Your task to perform on an android device: Open eBay Image 0: 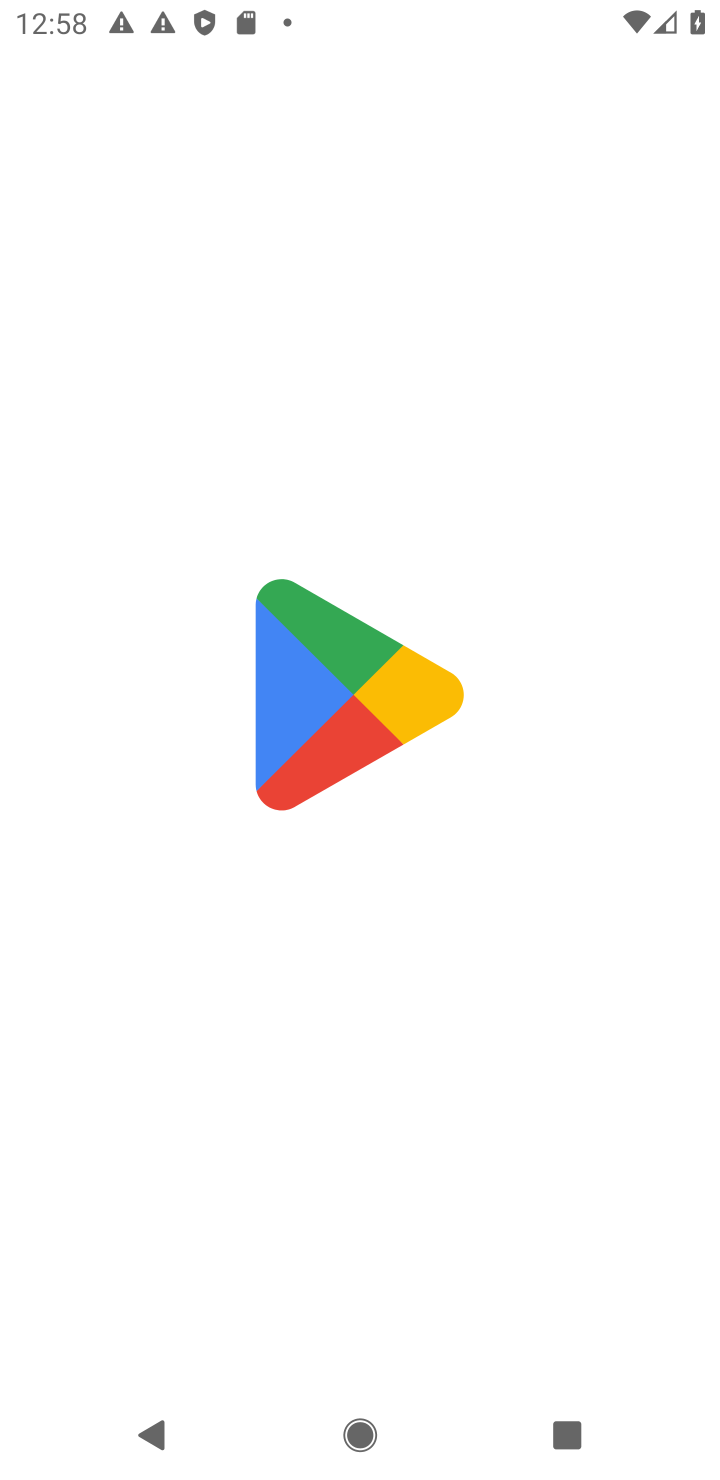
Step 0: press home button
Your task to perform on an android device: Open eBay Image 1: 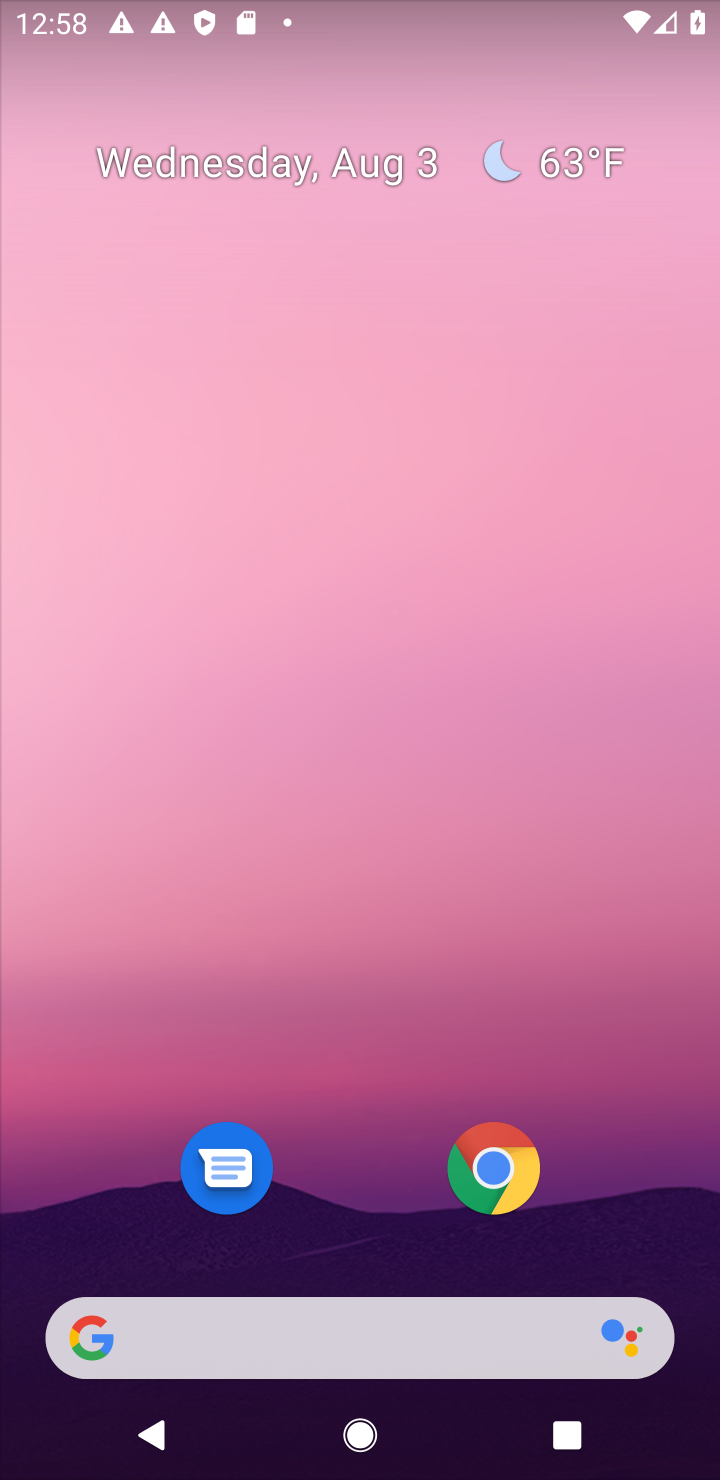
Step 1: click (494, 1161)
Your task to perform on an android device: Open eBay Image 2: 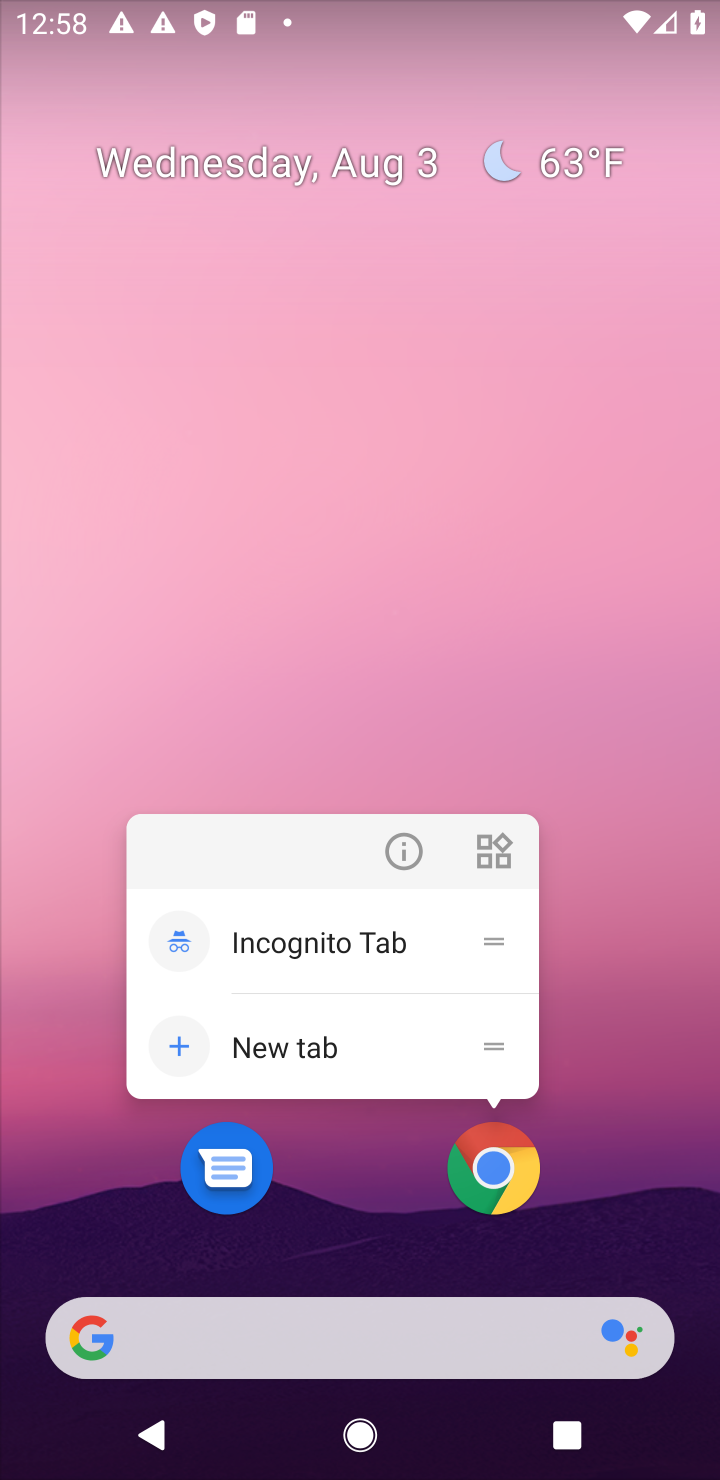
Step 2: click (492, 1169)
Your task to perform on an android device: Open eBay Image 3: 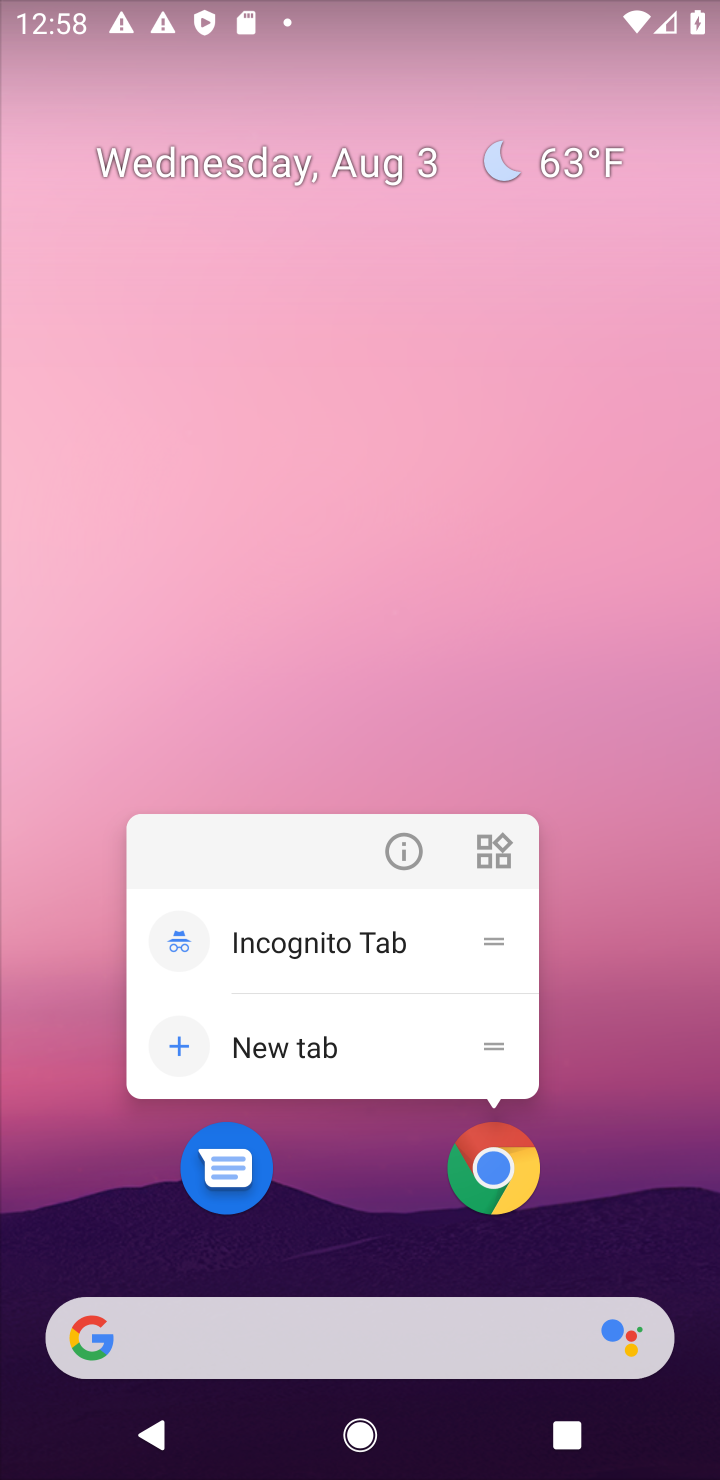
Step 3: click (498, 1175)
Your task to perform on an android device: Open eBay Image 4: 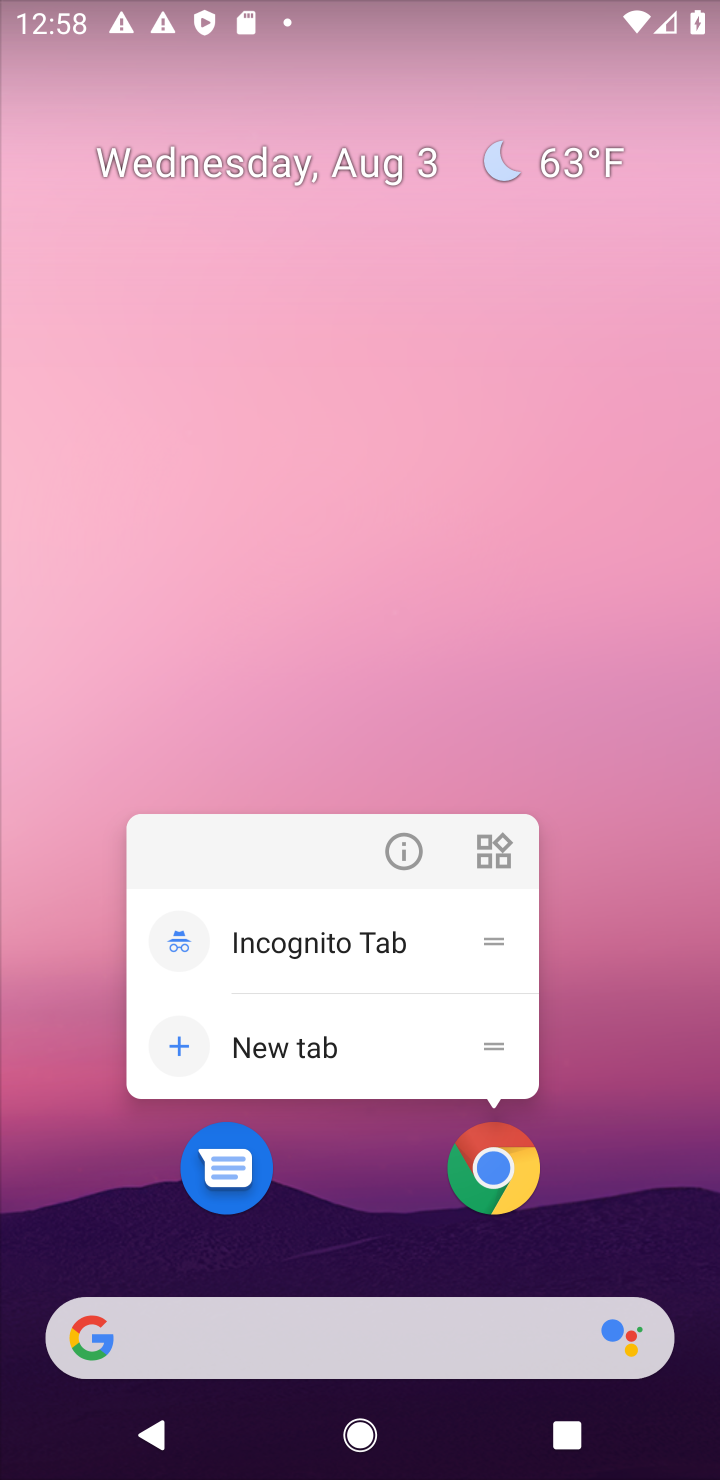
Step 4: click (492, 1172)
Your task to perform on an android device: Open eBay Image 5: 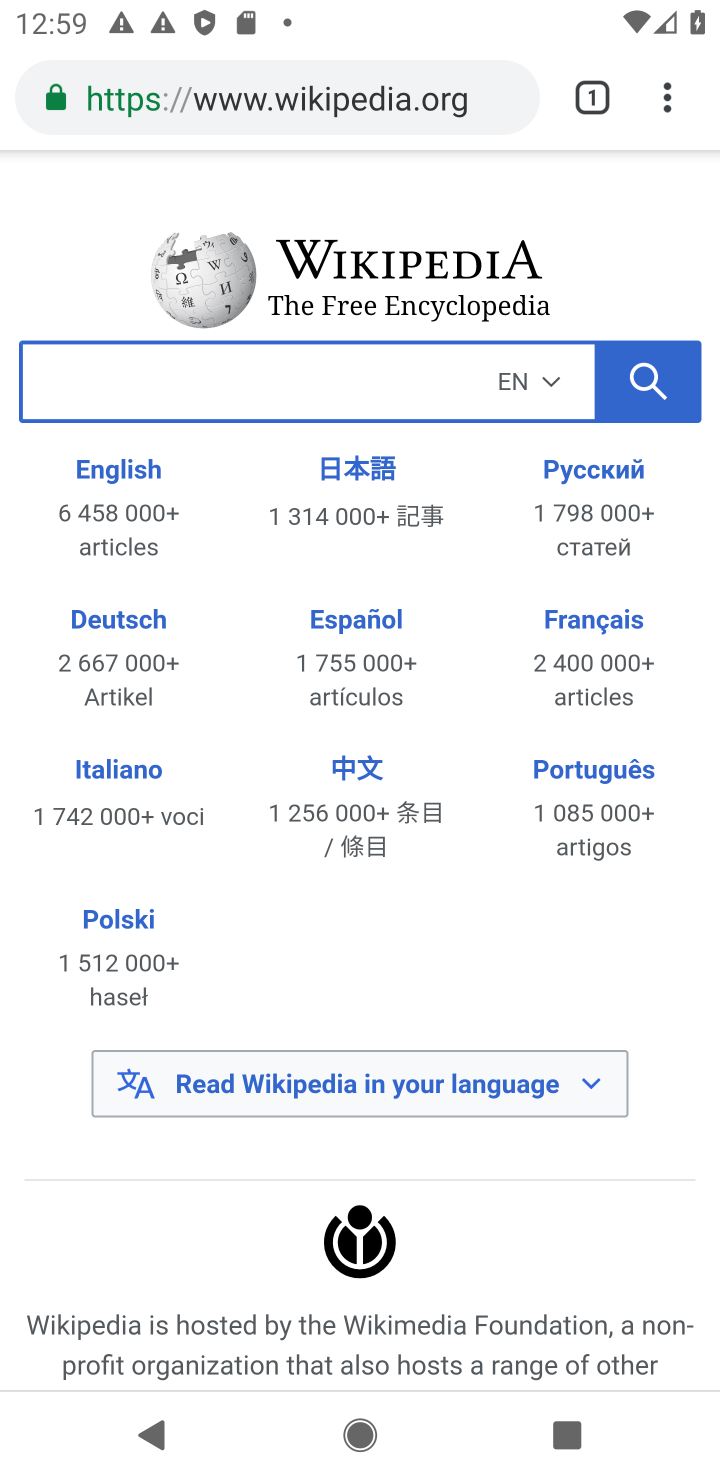
Step 5: click (479, 87)
Your task to perform on an android device: Open eBay Image 6: 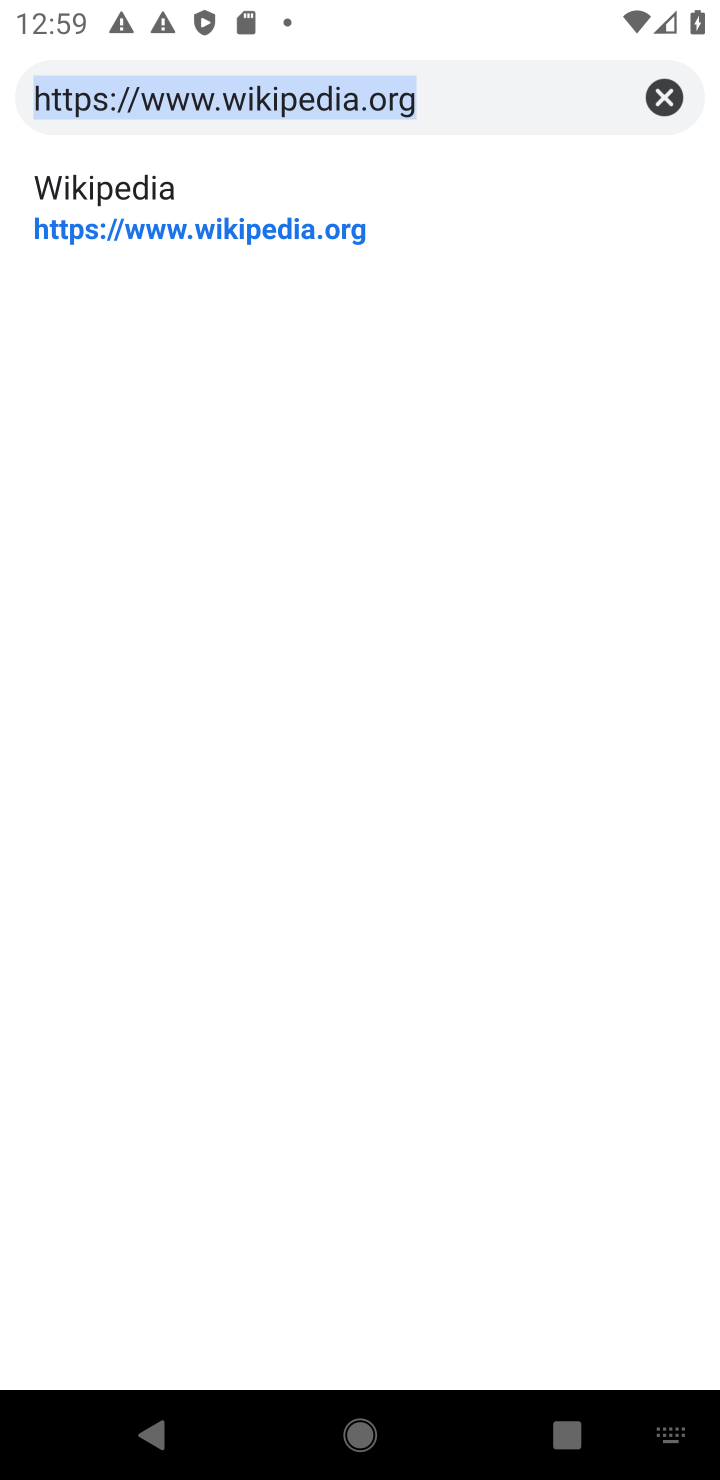
Step 6: click (657, 89)
Your task to perform on an android device: Open eBay Image 7: 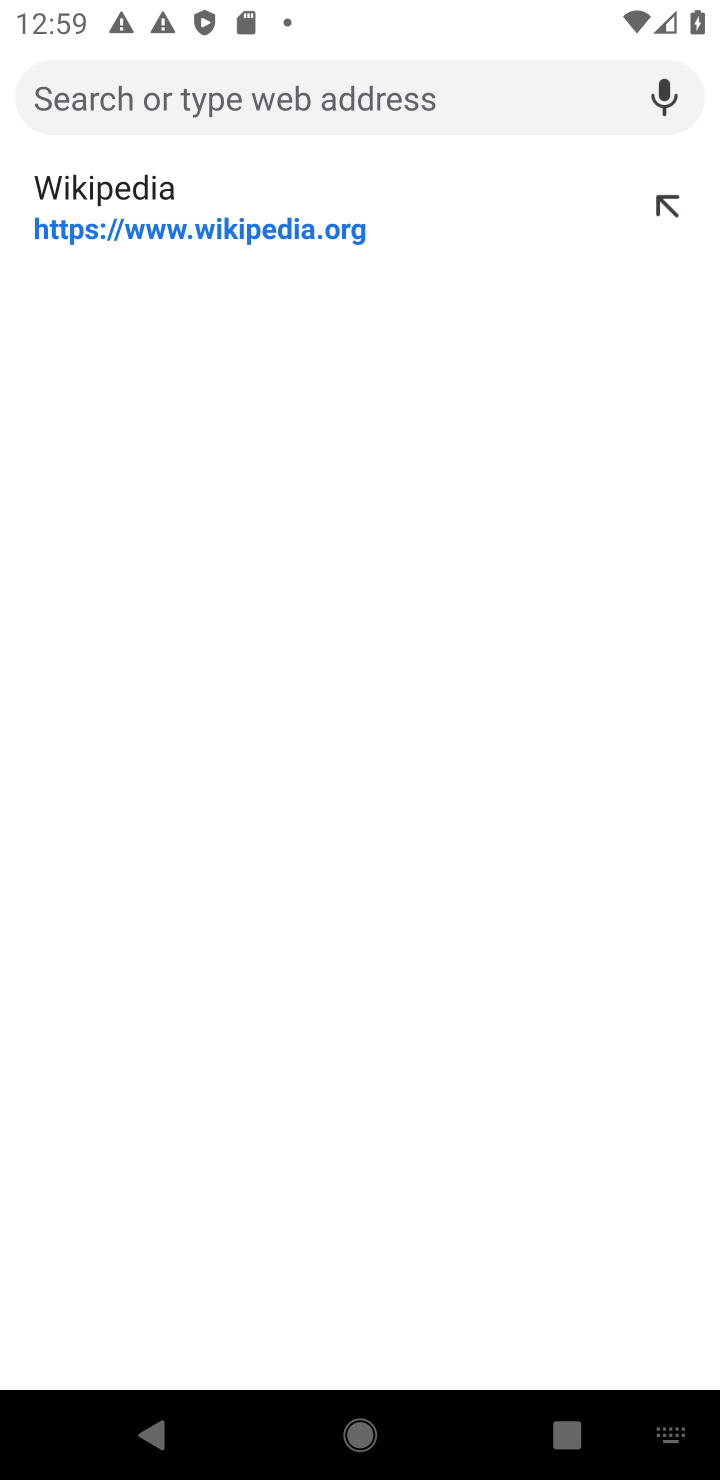
Step 7: type "eBay"
Your task to perform on an android device: Open eBay Image 8: 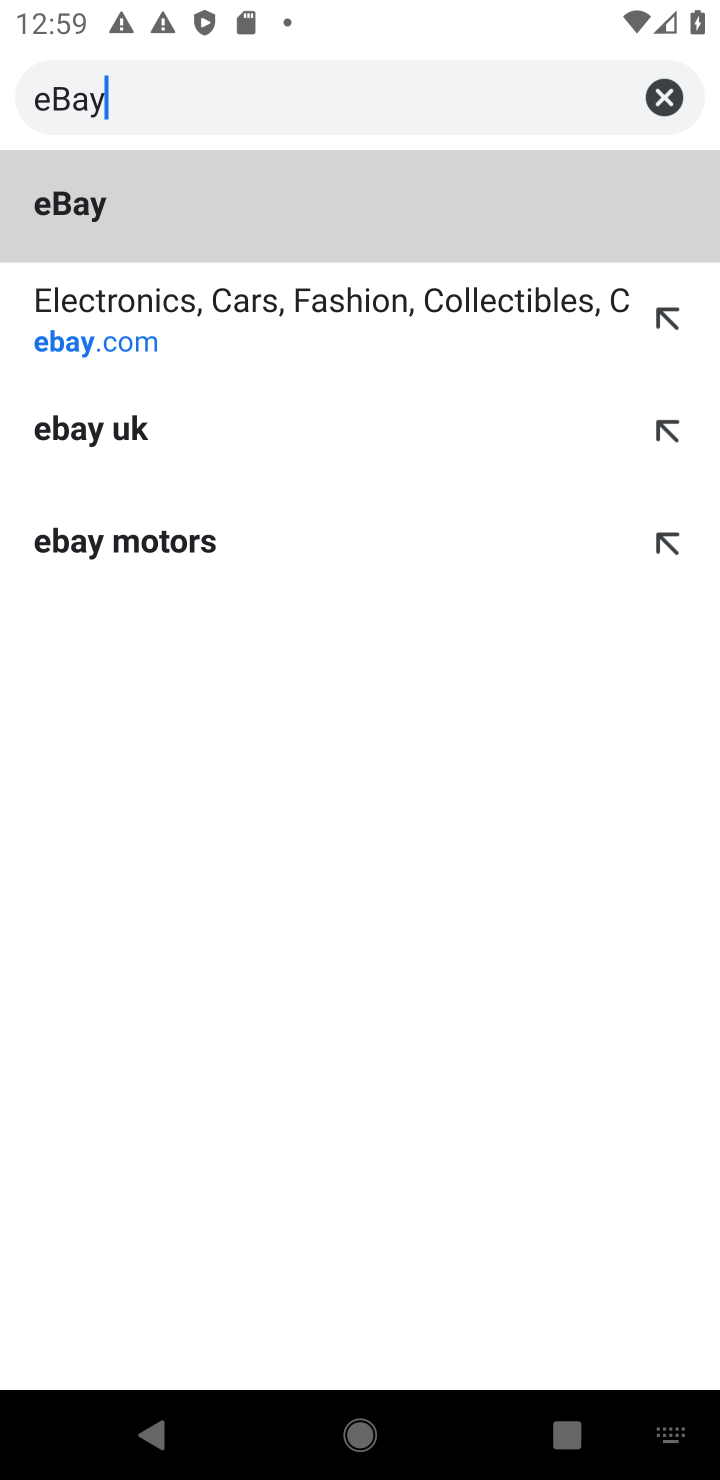
Step 8: click (77, 203)
Your task to perform on an android device: Open eBay Image 9: 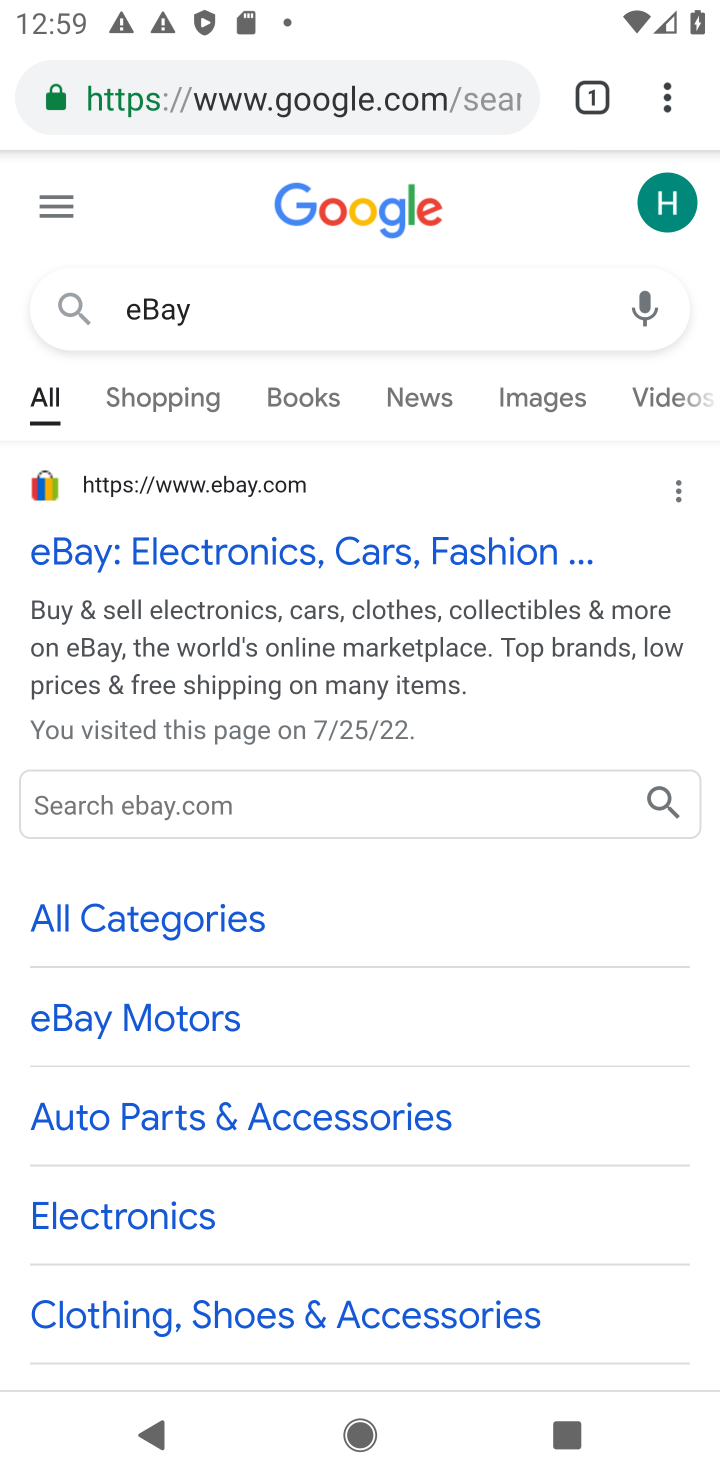
Step 9: click (263, 546)
Your task to perform on an android device: Open eBay Image 10: 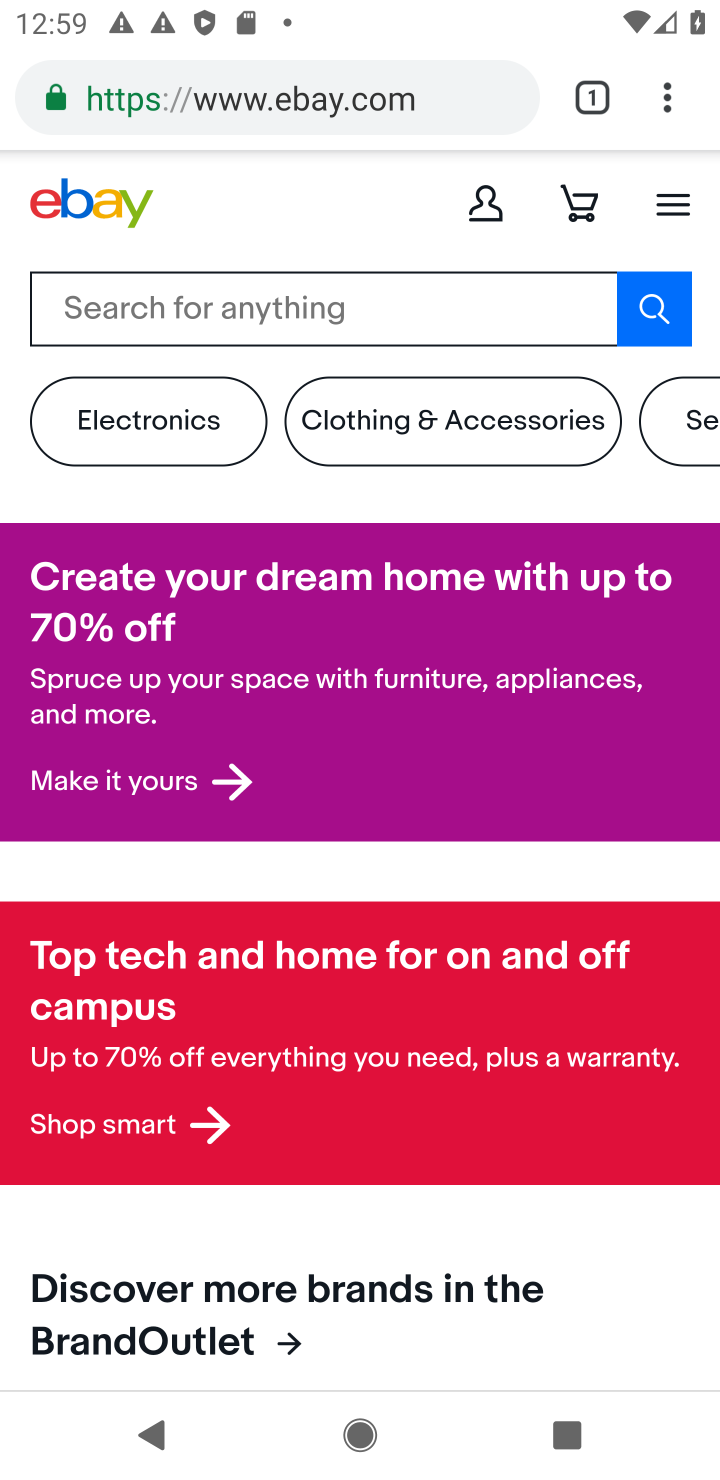
Step 10: task complete